Your task to perform on an android device: turn notification dots off Image 0: 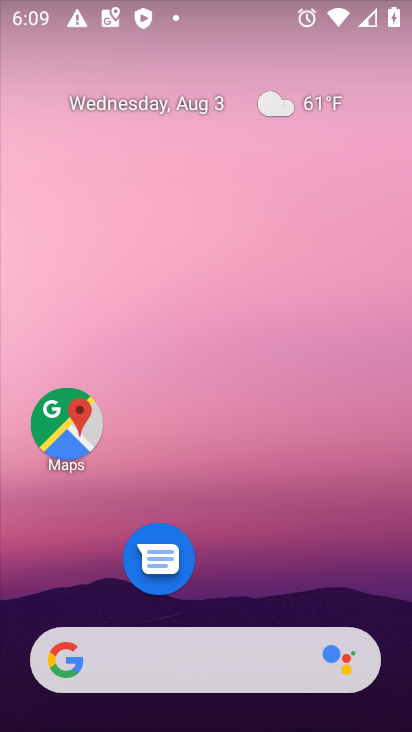
Step 0: drag from (156, 641) to (213, 150)
Your task to perform on an android device: turn notification dots off Image 1: 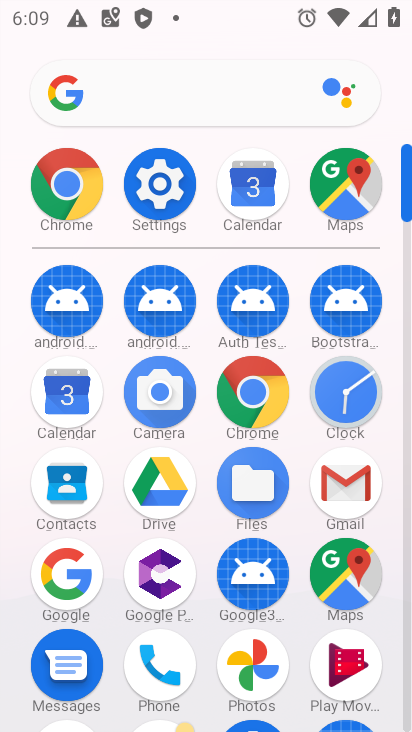
Step 1: click (156, 174)
Your task to perform on an android device: turn notification dots off Image 2: 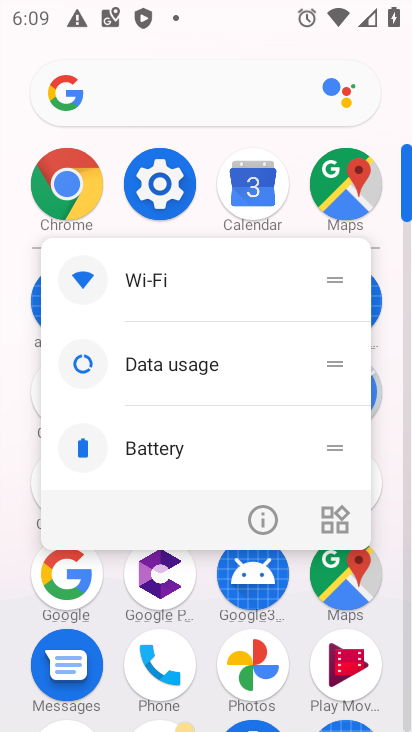
Step 2: click (168, 171)
Your task to perform on an android device: turn notification dots off Image 3: 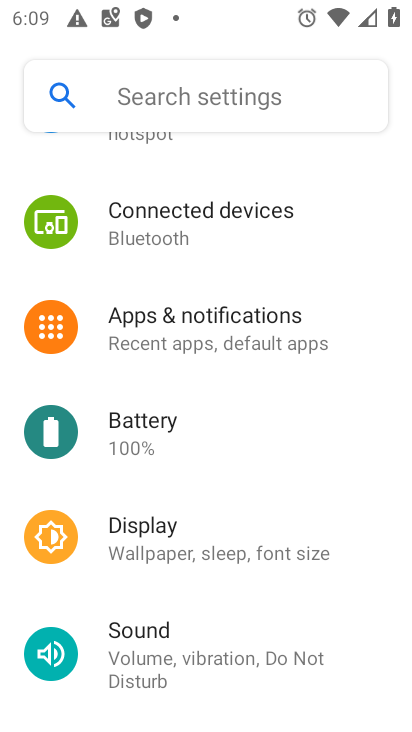
Step 3: click (258, 325)
Your task to perform on an android device: turn notification dots off Image 4: 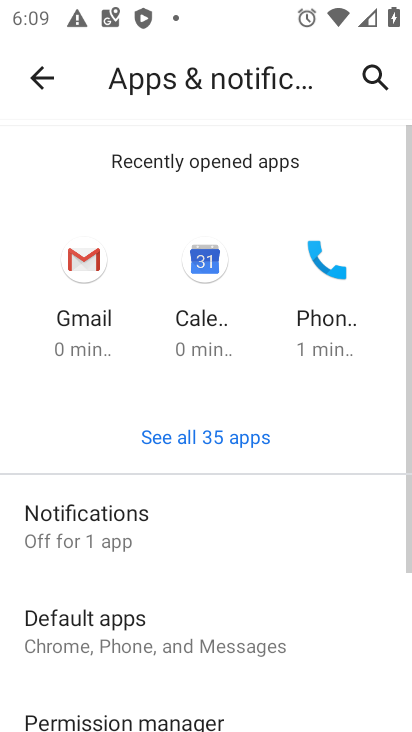
Step 4: drag from (134, 706) to (178, 337)
Your task to perform on an android device: turn notification dots off Image 5: 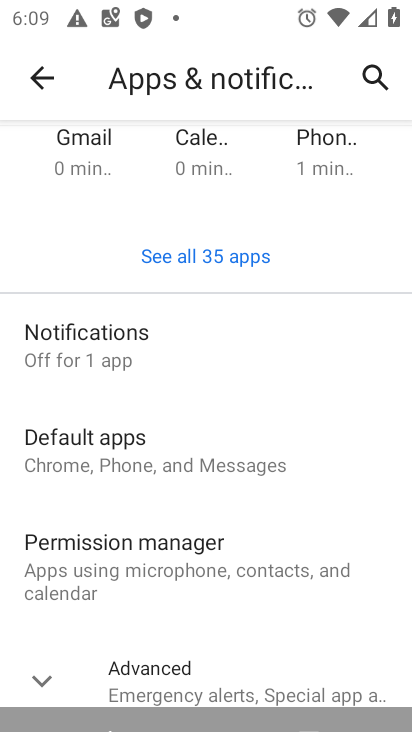
Step 5: drag from (125, 629) to (144, 322)
Your task to perform on an android device: turn notification dots off Image 6: 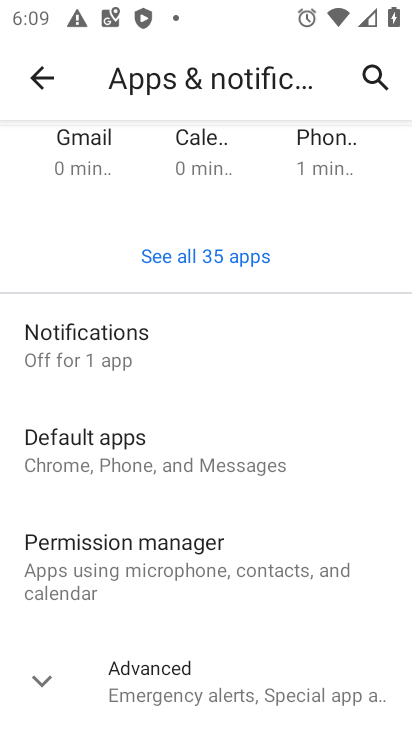
Step 6: click (62, 688)
Your task to perform on an android device: turn notification dots off Image 7: 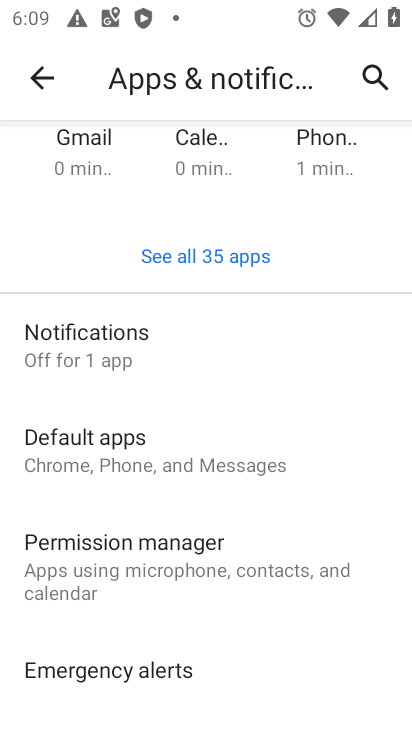
Step 7: click (37, 347)
Your task to perform on an android device: turn notification dots off Image 8: 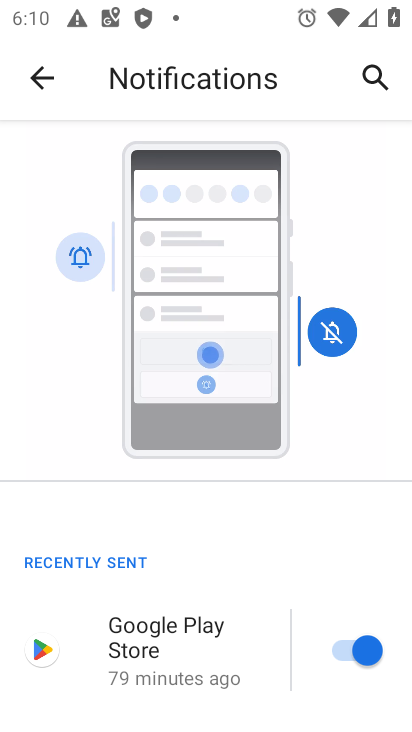
Step 8: drag from (232, 685) to (247, 241)
Your task to perform on an android device: turn notification dots off Image 9: 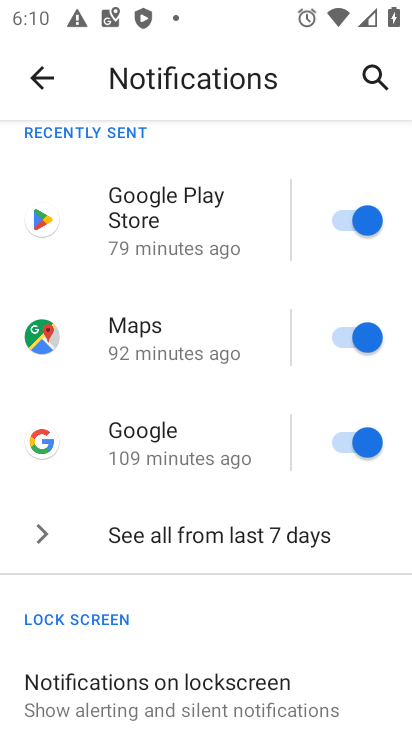
Step 9: drag from (208, 702) to (229, 315)
Your task to perform on an android device: turn notification dots off Image 10: 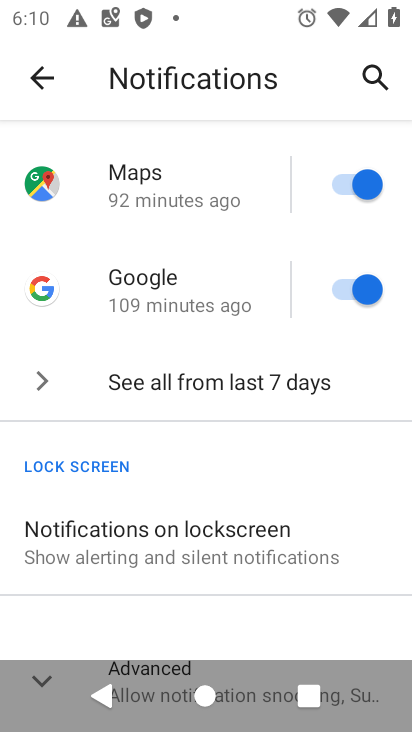
Step 10: click (194, 553)
Your task to perform on an android device: turn notification dots off Image 11: 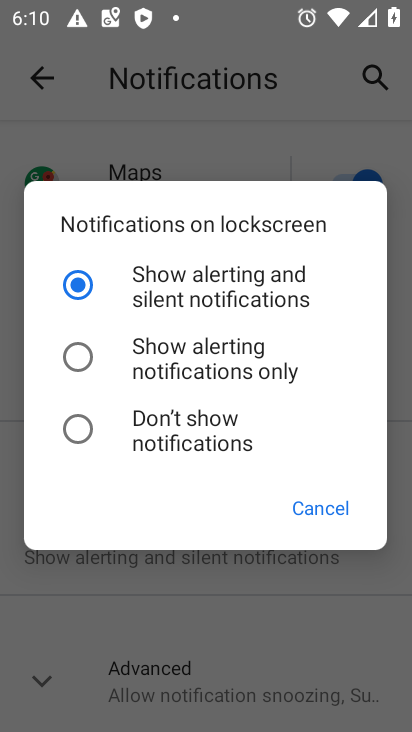
Step 11: click (312, 506)
Your task to perform on an android device: turn notification dots off Image 12: 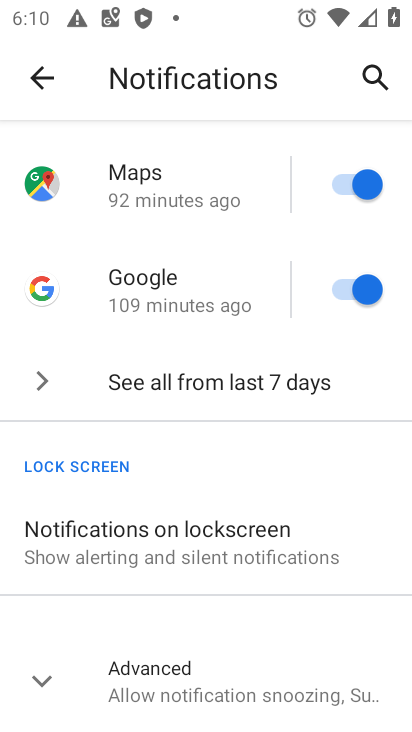
Step 12: drag from (196, 702) to (201, 331)
Your task to perform on an android device: turn notification dots off Image 13: 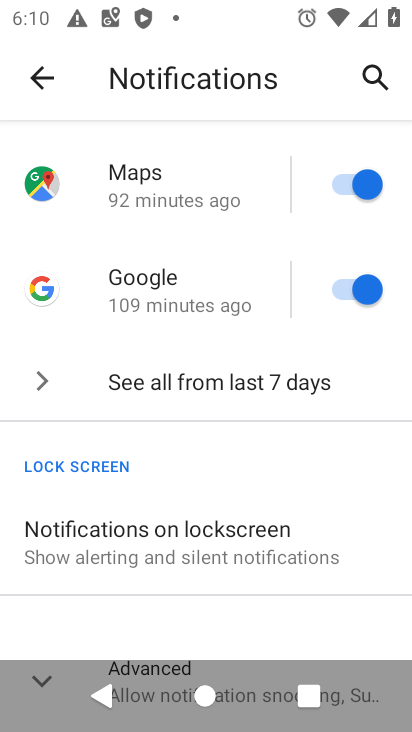
Step 13: drag from (188, 609) to (197, 198)
Your task to perform on an android device: turn notification dots off Image 14: 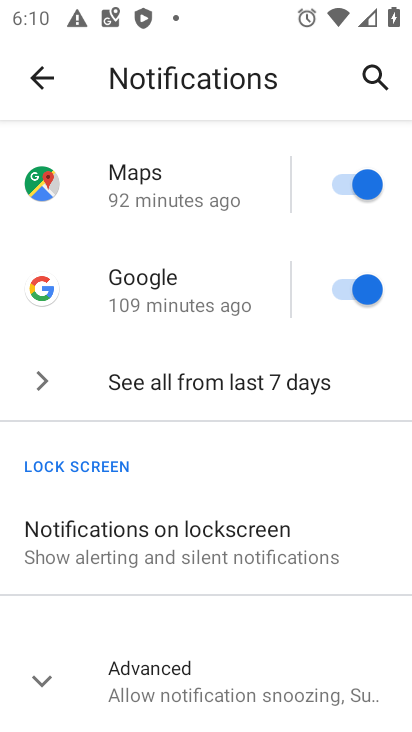
Step 14: click (179, 695)
Your task to perform on an android device: turn notification dots off Image 15: 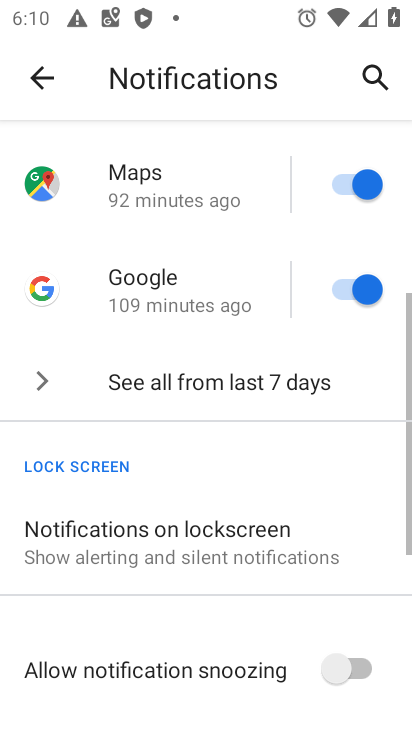
Step 15: drag from (174, 696) to (164, 246)
Your task to perform on an android device: turn notification dots off Image 16: 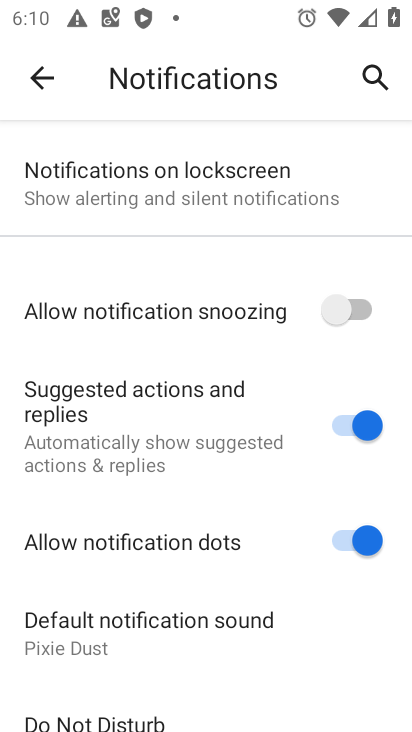
Step 16: click (344, 544)
Your task to perform on an android device: turn notification dots off Image 17: 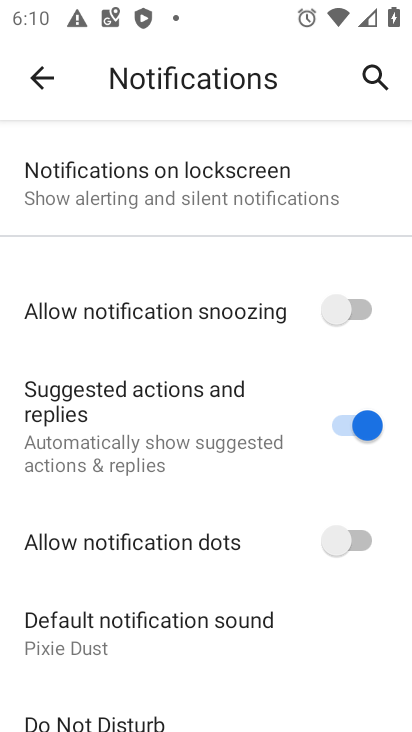
Step 17: task complete